Your task to perform on an android device: toggle location history Image 0: 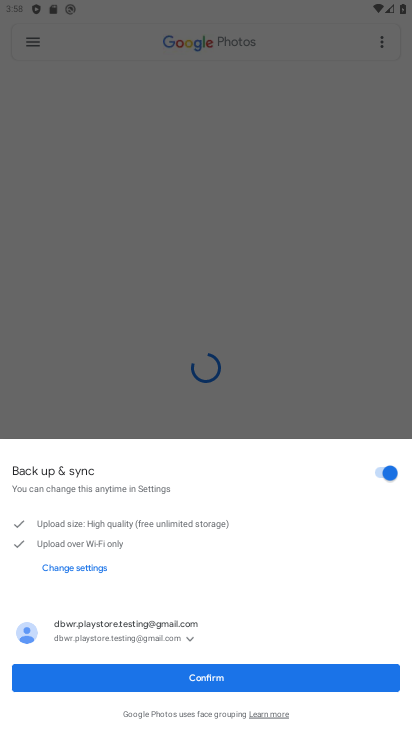
Step 0: press home button
Your task to perform on an android device: toggle location history Image 1: 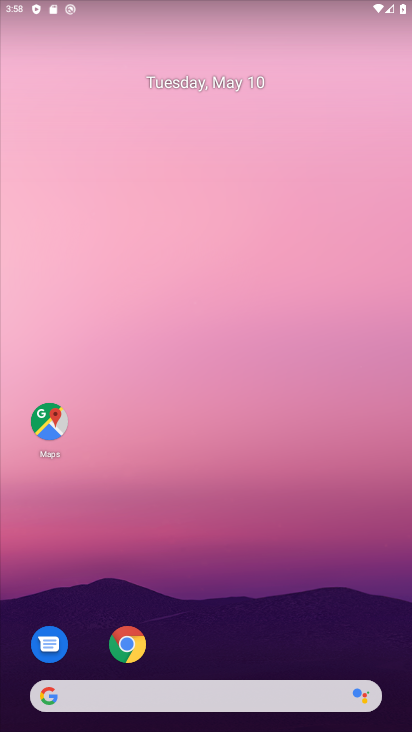
Step 1: drag from (244, 685) to (212, 313)
Your task to perform on an android device: toggle location history Image 2: 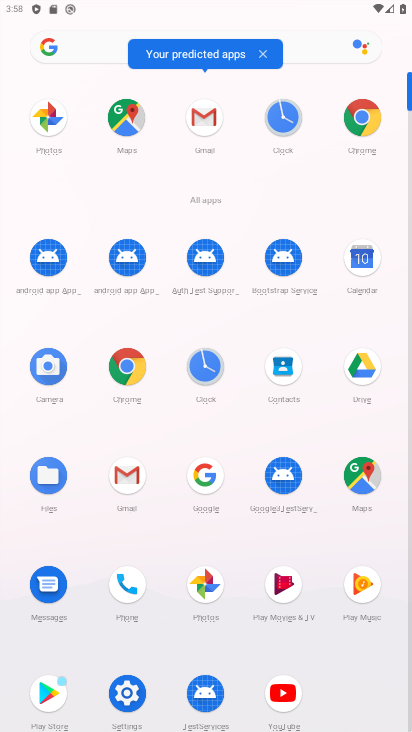
Step 2: click (120, 696)
Your task to perform on an android device: toggle location history Image 3: 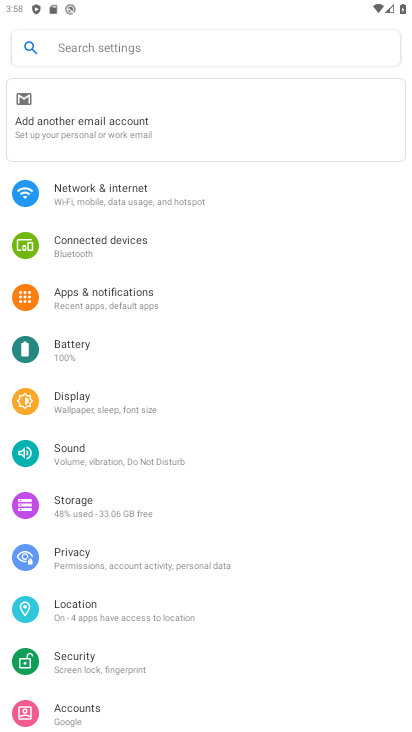
Step 3: click (94, 610)
Your task to perform on an android device: toggle location history Image 4: 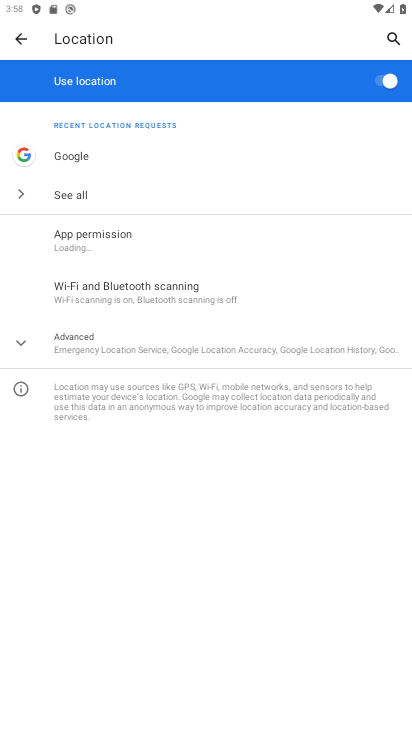
Step 4: click (112, 345)
Your task to perform on an android device: toggle location history Image 5: 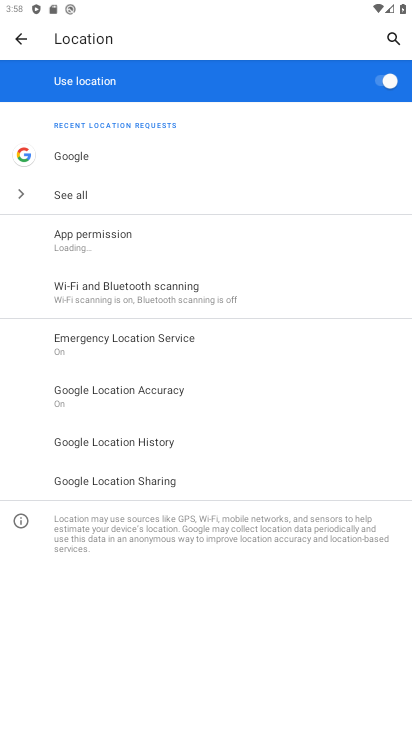
Step 5: click (130, 444)
Your task to perform on an android device: toggle location history Image 6: 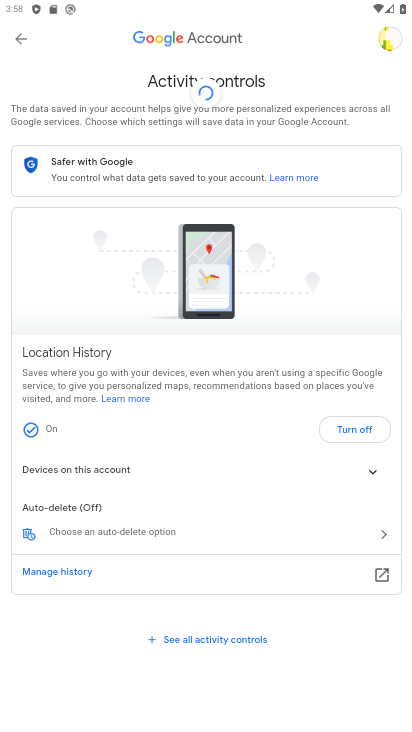
Step 6: click (377, 424)
Your task to perform on an android device: toggle location history Image 7: 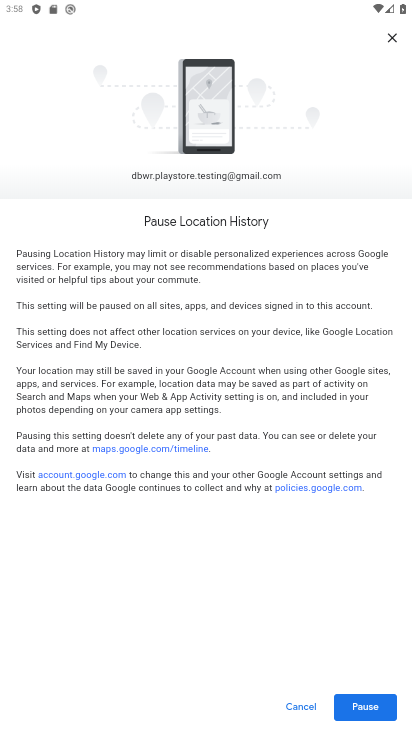
Step 7: click (379, 704)
Your task to perform on an android device: toggle location history Image 8: 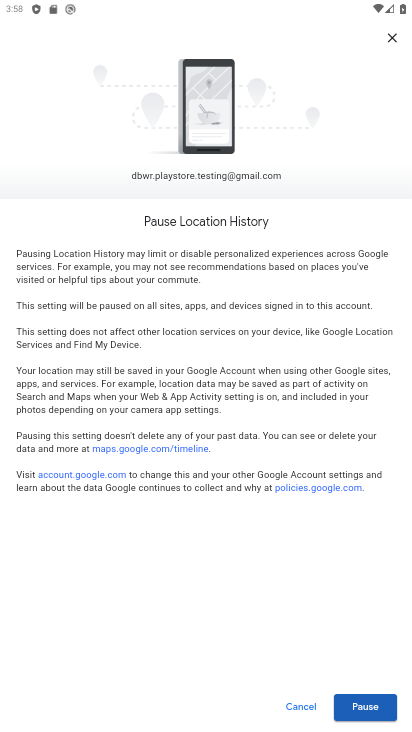
Step 8: click (358, 713)
Your task to perform on an android device: toggle location history Image 9: 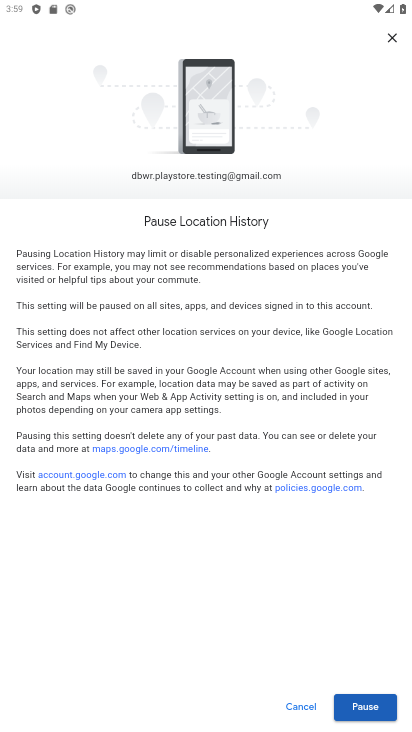
Step 9: click (356, 712)
Your task to perform on an android device: toggle location history Image 10: 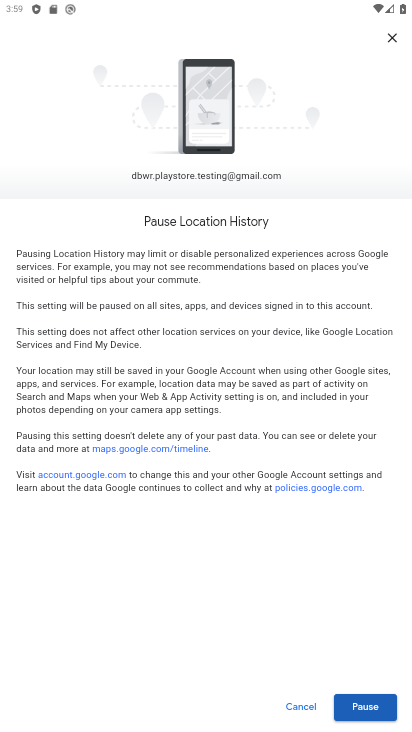
Step 10: click (367, 714)
Your task to perform on an android device: toggle location history Image 11: 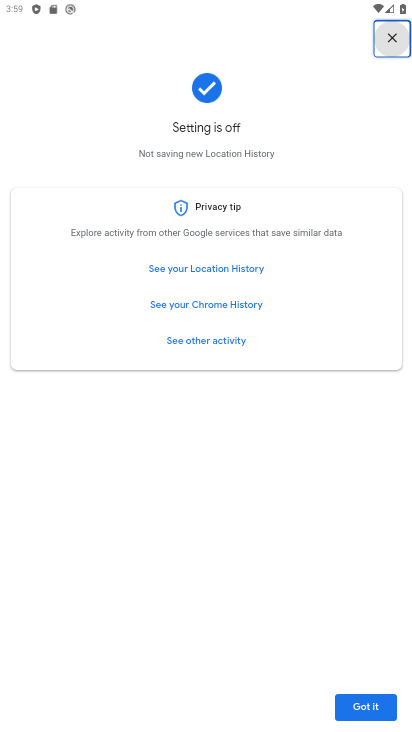
Step 11: click (344, 707)
Your task to perform on an android device: toggle location history Image 12: 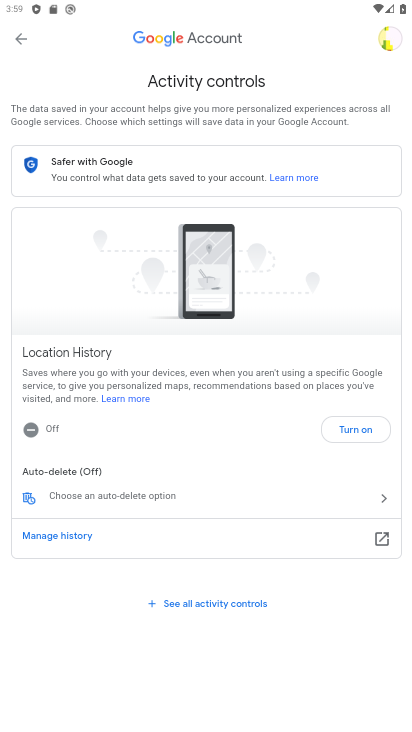
Step 12: task complete